Your task to perform on an android device: Show me recent news Image 0: 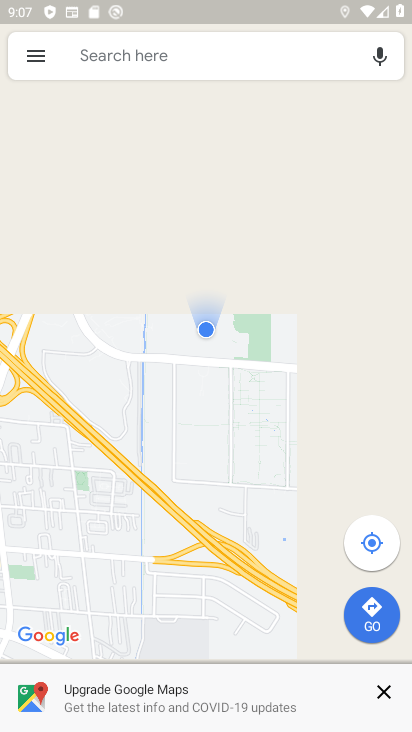
Step 0: press home button
Your task to perform on an android device: Show me recent news Image 1: 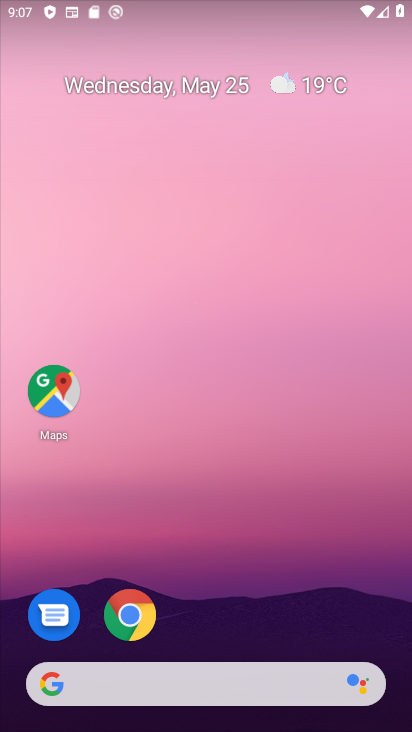
Step 1: drag from (271, 713) to (180, 118)
Your task to perform on an android device: Show me recent news Image 2: 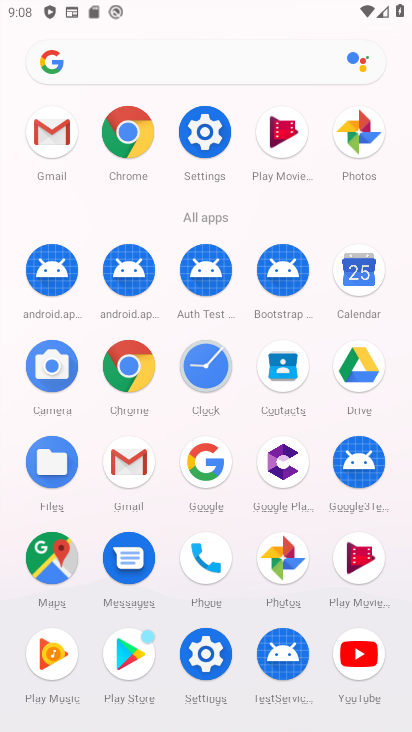
Step 2: click (121, 67)
Your task to perform on an android device: Show me recent news Image 3: 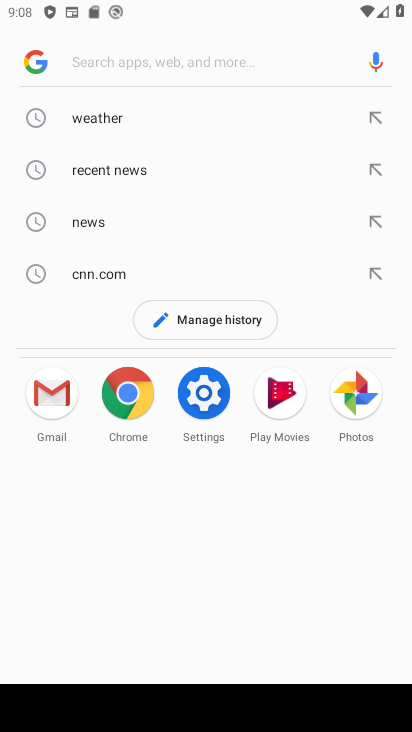
Step 3: drag from (135, 220) to (150, 365)
Your task to perform on an android device: Show me recent news Image 4: 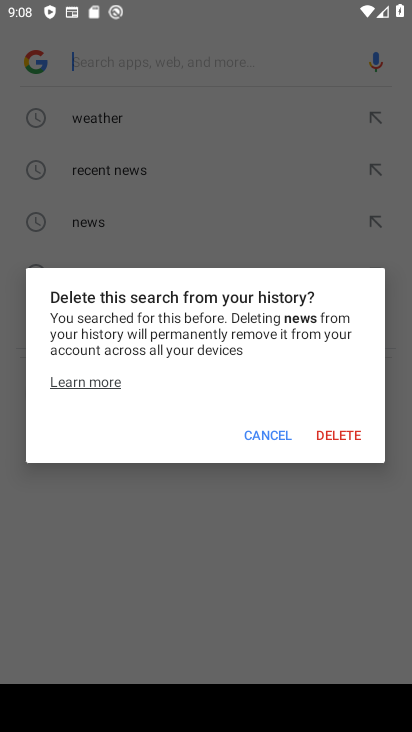
Step 4: click (272, 428)
Your task to perform on an android device: Show me recent news Image 5: 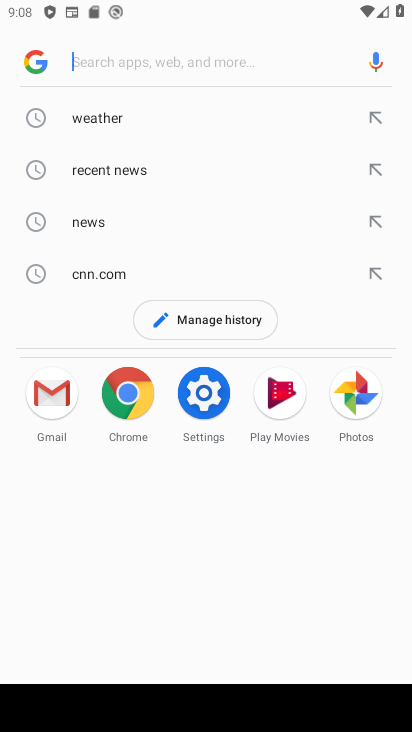
Step 5: click (122, 67)
Your task to perform on an android device: Show me recent news Image 6: 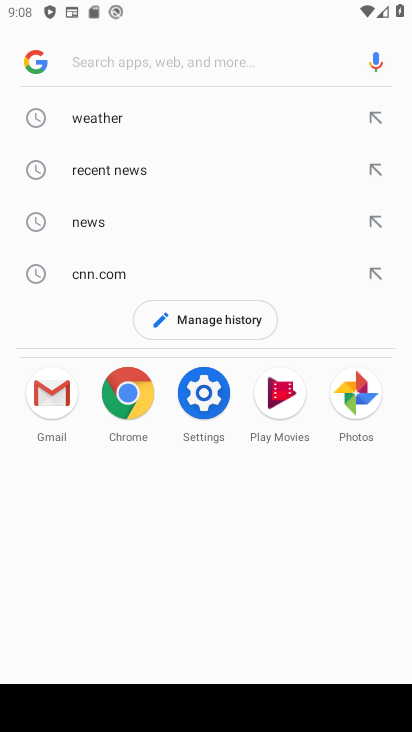
Step 6: click (139, 73)
Your task to perform on an android device: Show me recent news Image 7: 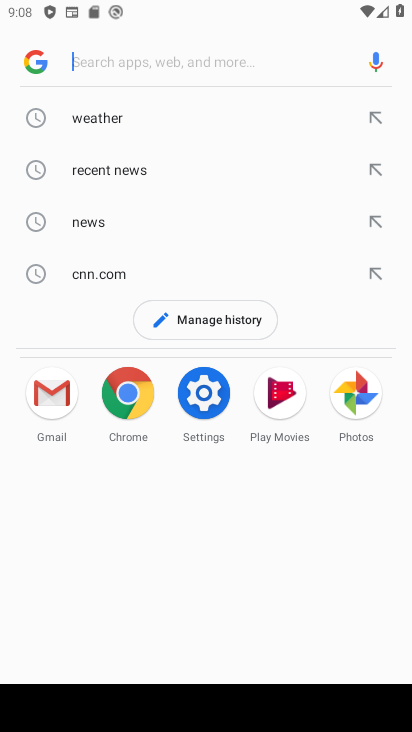
Step 7: drag from (386, 711) to (320, 580)
Your task to perform on an android device: Show me recent news Image 8: 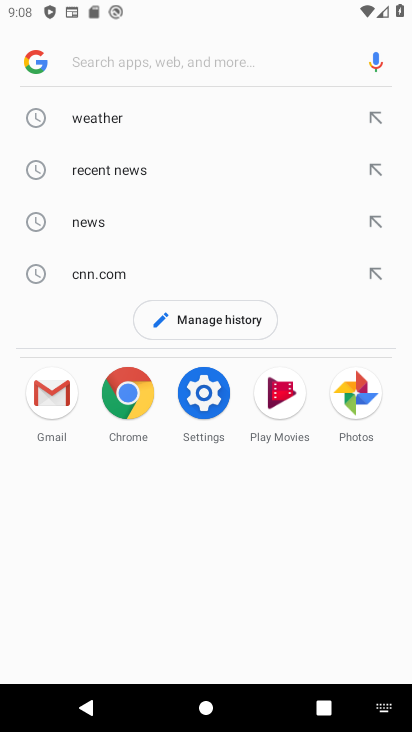
Step 8: click (377, 708)
Your task to perform on an android device: Show me recent news Image 9: 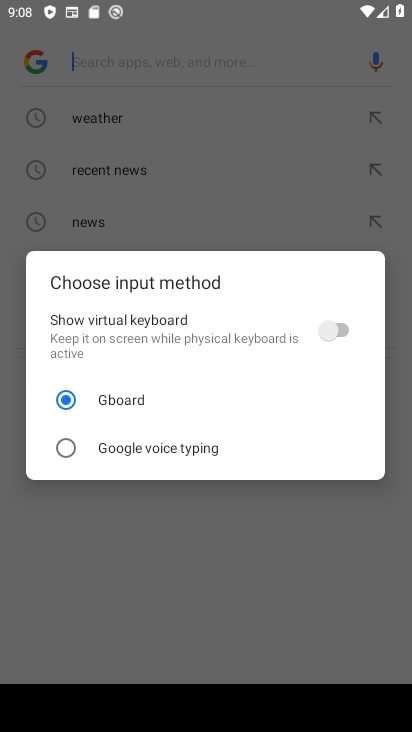
Step 9: click (336, 329)
Your task to perform on an android device: Show me recent news Image 10: 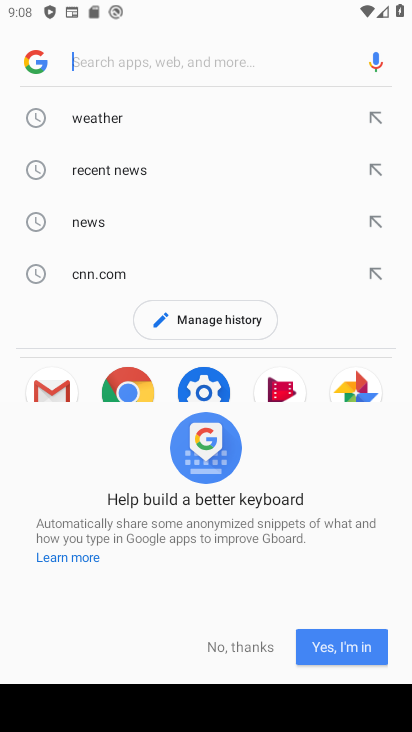
Step 10: click (242, 640)
Your task to perform on an android device: Show me recent news Image 11: 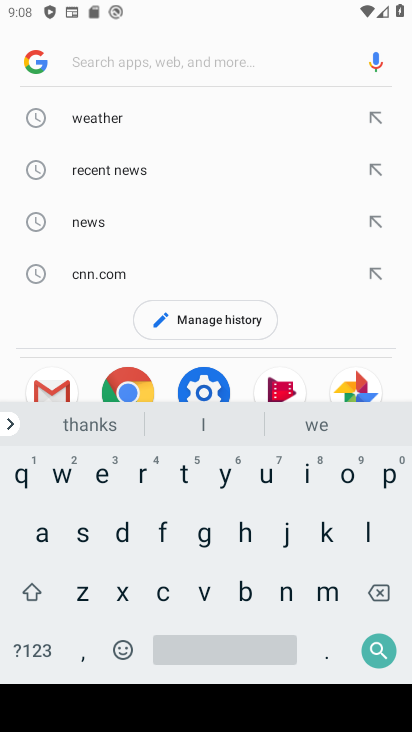
Step 11: click (136, 480)
Your task to perform on an android device: Show me recent news Image 12: 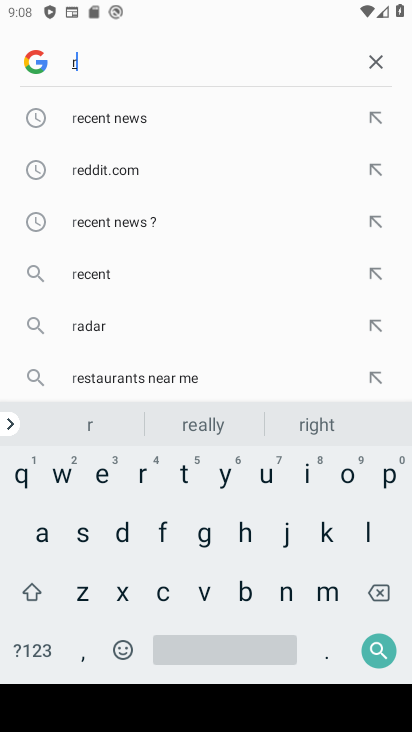
Step 12: click (104, 477)
Your task to perform on an android device: Show me recent news Image 13: 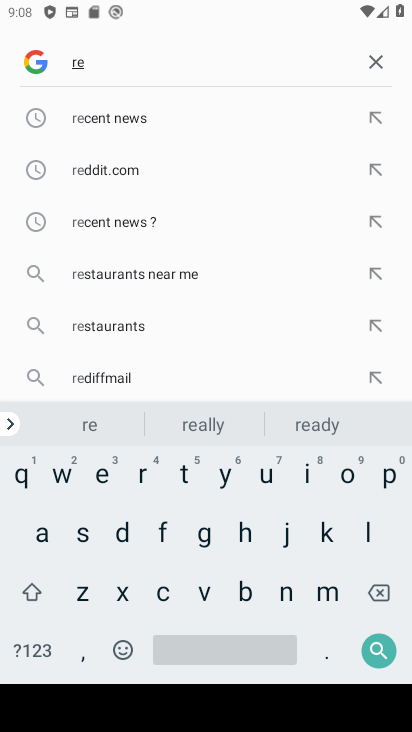
Step 13: click (131, 126)
Your task to perform on an android device: Show me recent news Image 14: 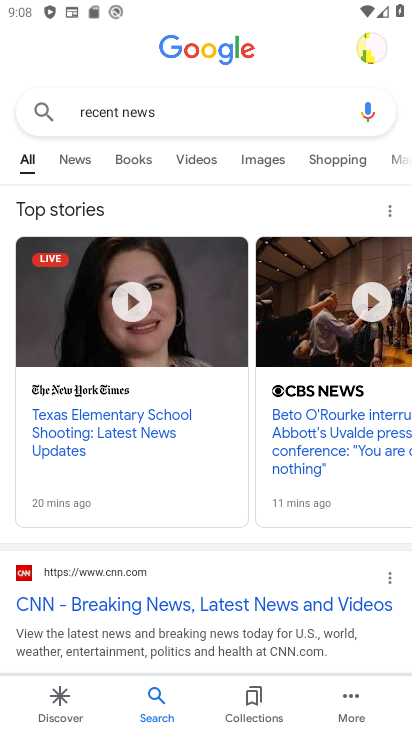
Step 14: task complete